Your task to perform on an android device: Open Wikipedia Image 0: 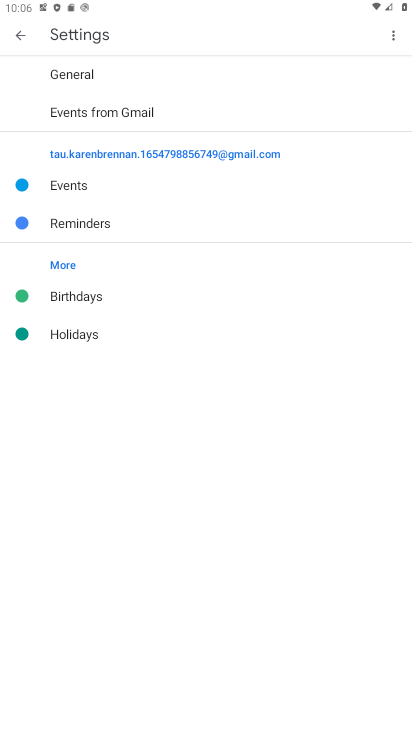
Step 0: press home button
Your task to perform on an android device: Open Wikipedia Image 1: 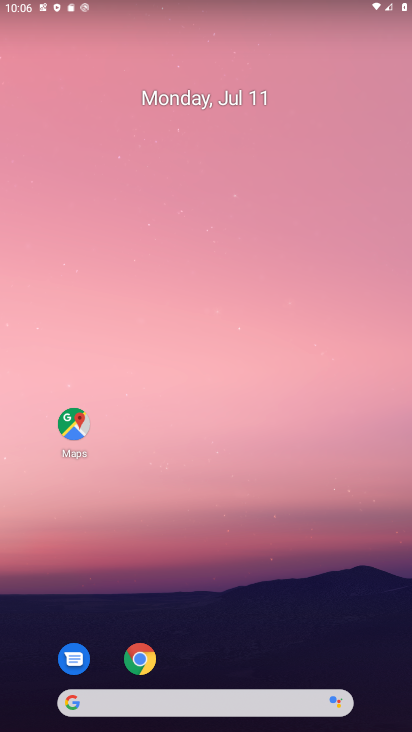
Step 1: click (140, 663)
Your task to perform on an android device: Open Wikipedia Image 2: 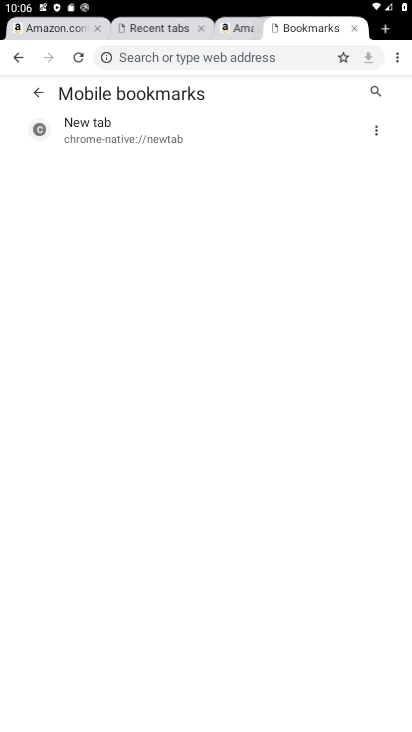
Step 2: click (399, 59)
Your task to perform on an android device: Open Wikipedia Image 3: 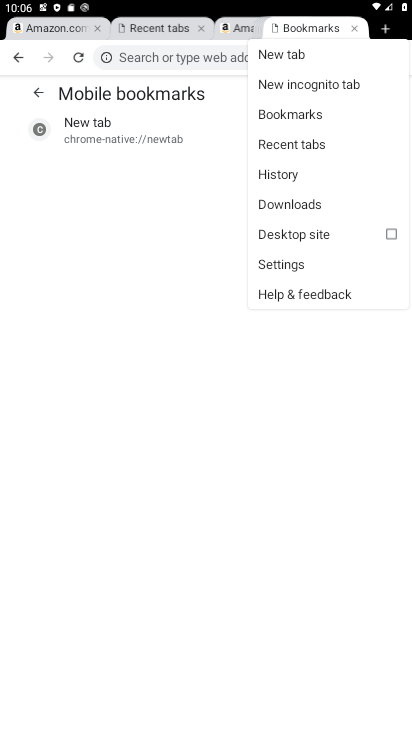
Step 3: click (279, 53)
Your task to perform on an android device: Open Wikipedia Image 4: 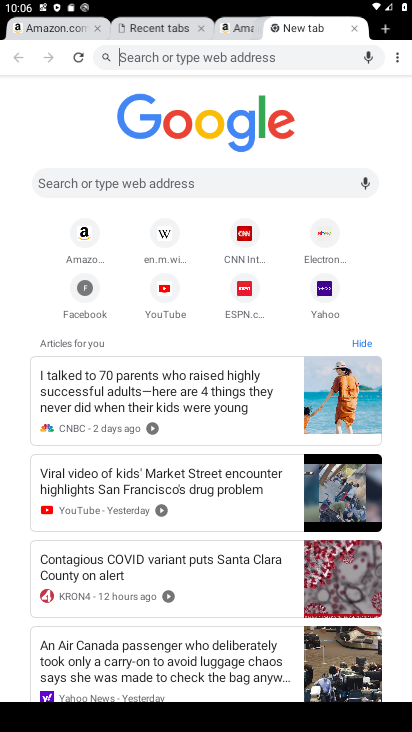
Step 4: click (166, 234)
Your task to perform on an android device: Open Wikipedia Image 5: 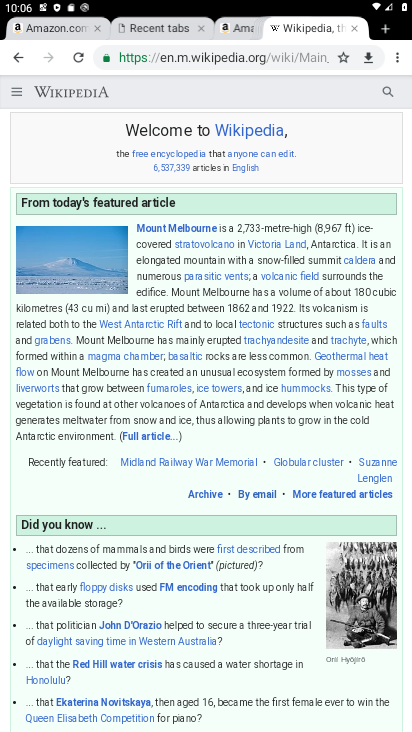
Step 5: task complete